Your task to perform on an android device: turn smart compose on in the gmail app Image 0: 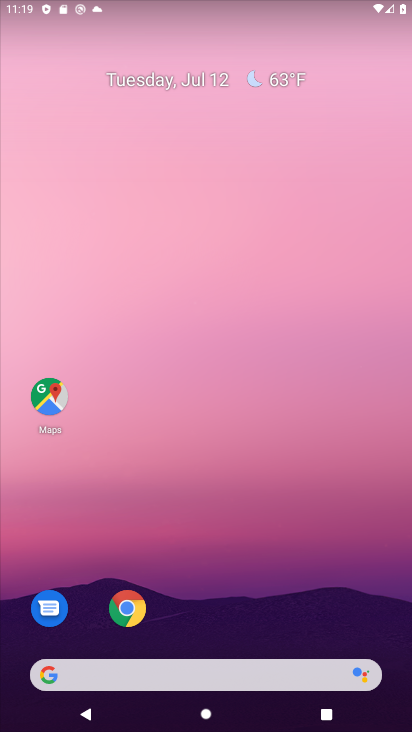
Step 0: drag from (225, 610) to (225, 139)
Your task to perform on an android device: turn smart compose on in the gmail app Image 1: 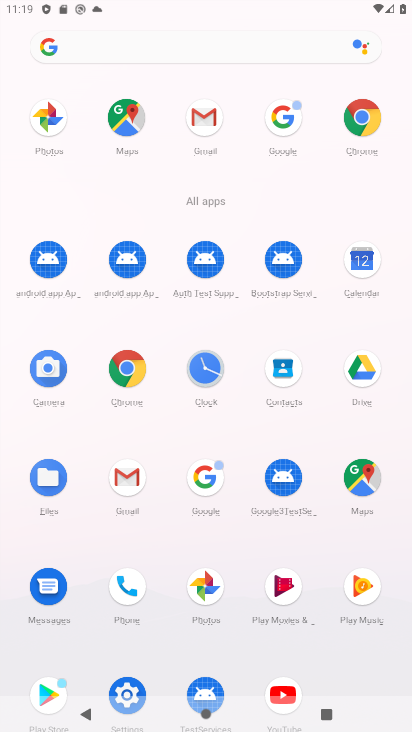
Step 1: click (207, 114)
Your task to perform on an android device: turn smart compose on in the gmail app Image 2: 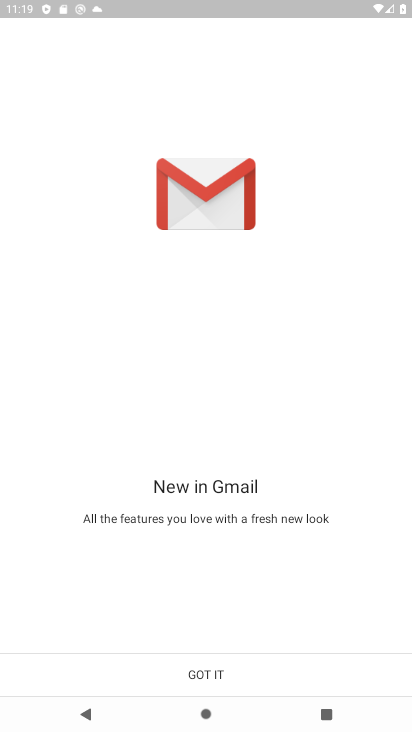
Step 2: click (211, 658)
Your task to perform on an android device: turn smart compose on in the gmail app Image 3: 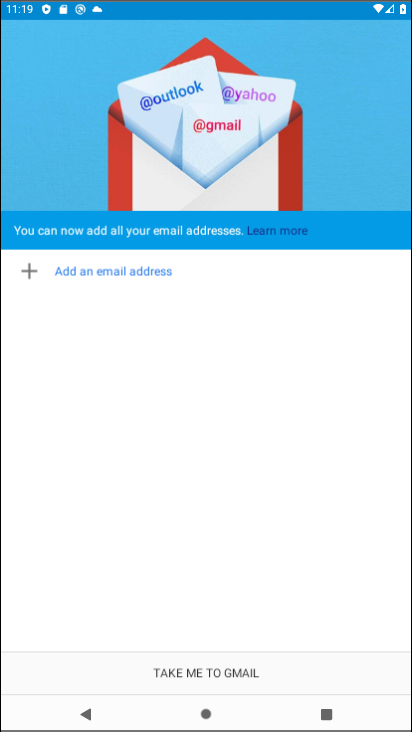
Step 3: click (215, 658)
Your task to perform on an android device: turn smart compose on in the gmail app Image 4: 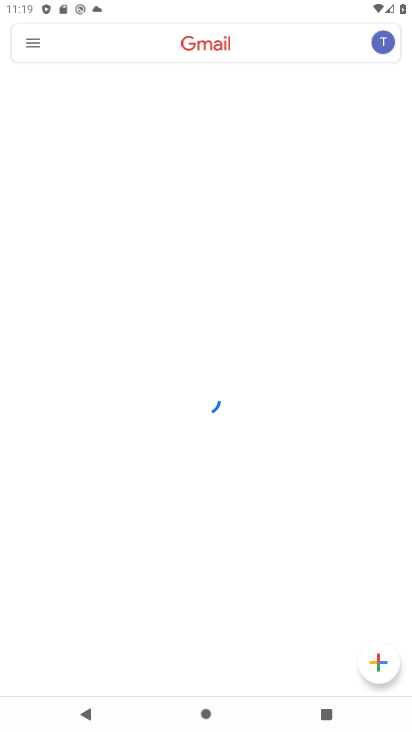
Step 4: click (37, 42)
Your task to perform on an android device: turn smart compose on in the gmail app Image 5: 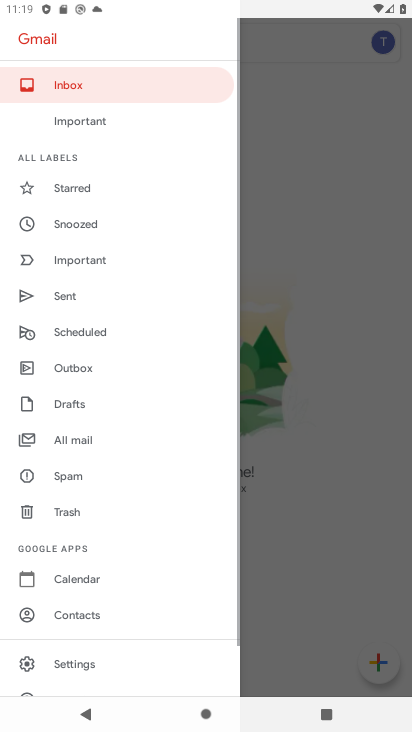
Step 5: click (71, 193)
Your task to perform on an android device: turn smart compose on in the gmail app Image 6: 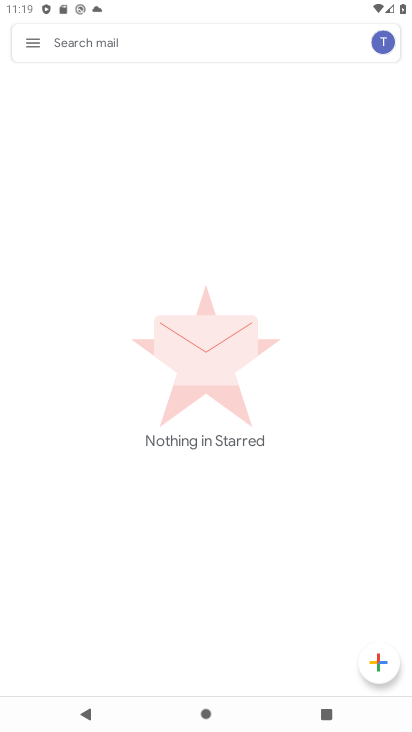
Step 6: click (22, 39)
Your task to perform on an android device: turn smart compose on in the gmail app Image 7: 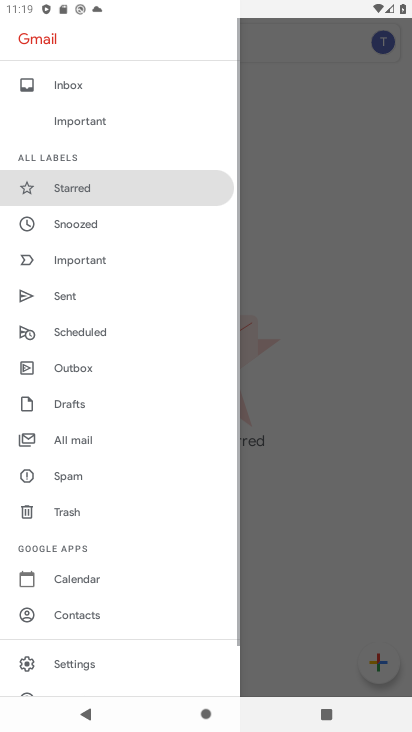
Step 7: click (107, 668)
Your task to perform on an android device: turn smart compose on in the gmail app Image 8: 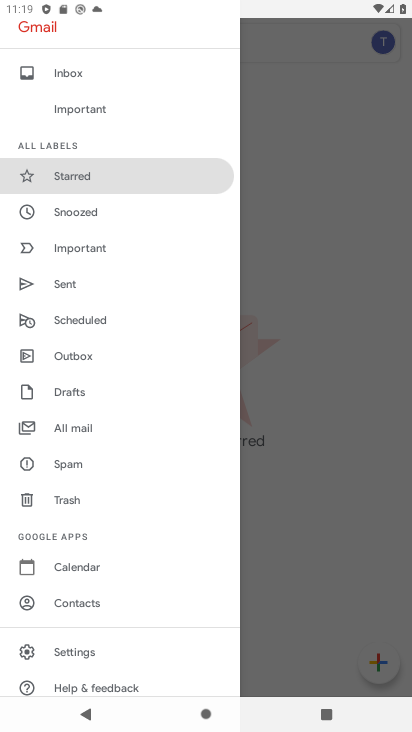
Step 8: click (84, 651)
Your task to perform on an android device: turn smart compose on in the gmail app Image 9: 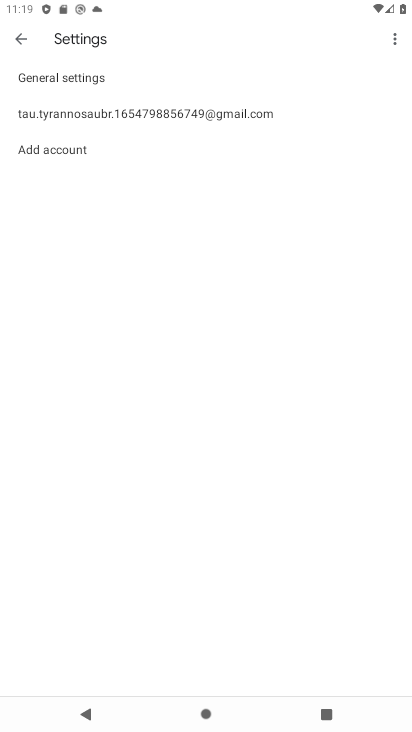
Step 9: click (85, 104)
Your task to perform on an android device: turn smart compose on in the gmail app Image 10: 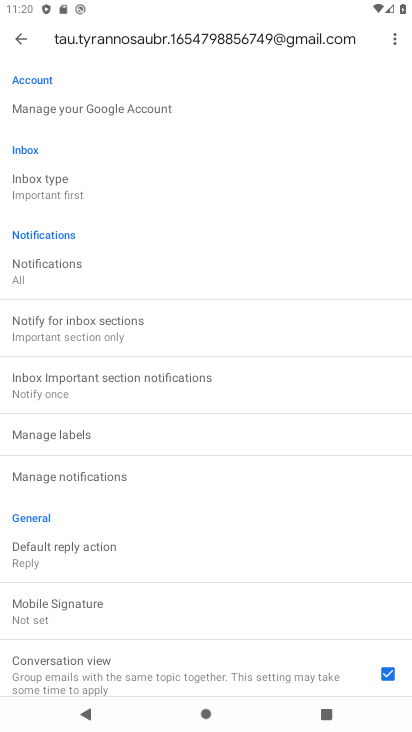
Step 10: task complete